Your task to perform on an android device: Open eBay Image 0: 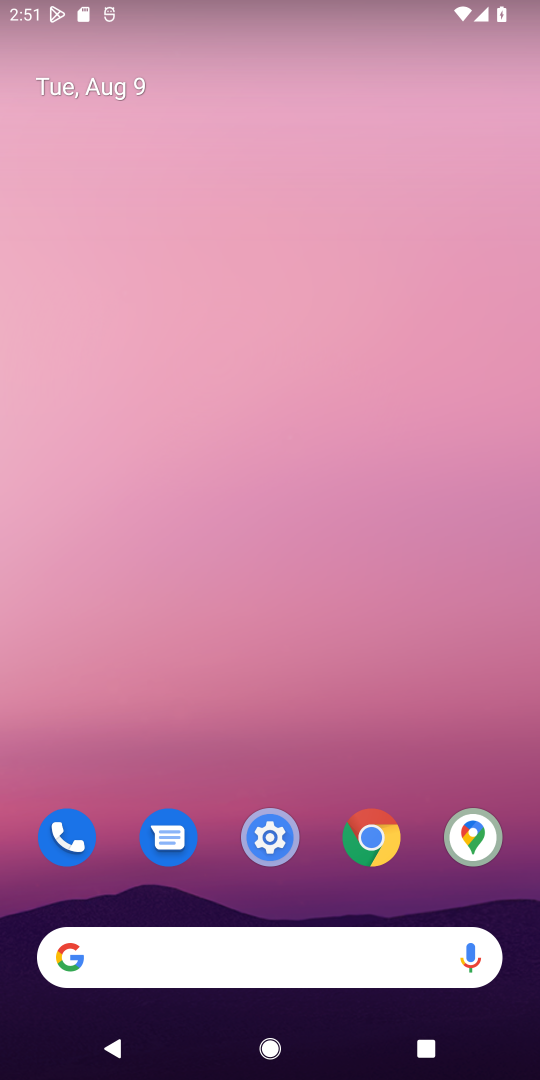
Step 0: drag from (86, 780) to (458, 114)
Your task to perform on an android device: Open eBay Image 1: 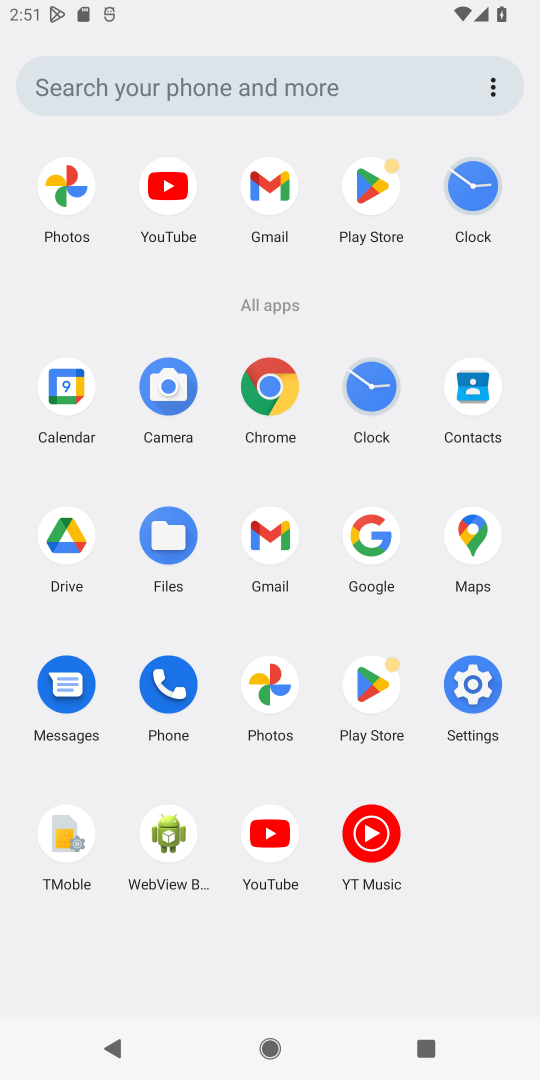
Step 1: click (267, 544)
Your task to perform on an android device: Open eBay Image 2: 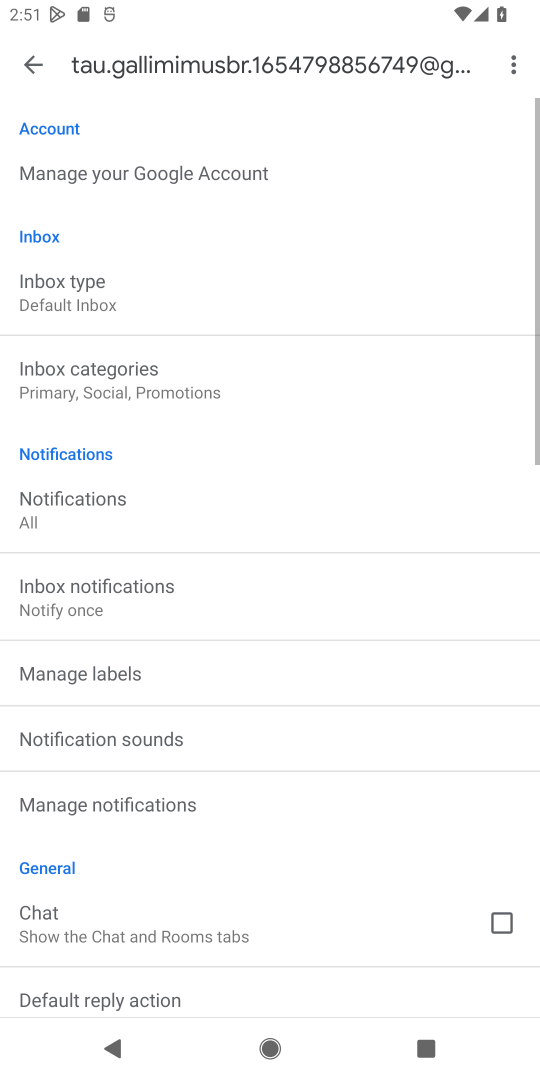
Step 2: press home button
Your task to perform on an android device: Open eBay Image 3: 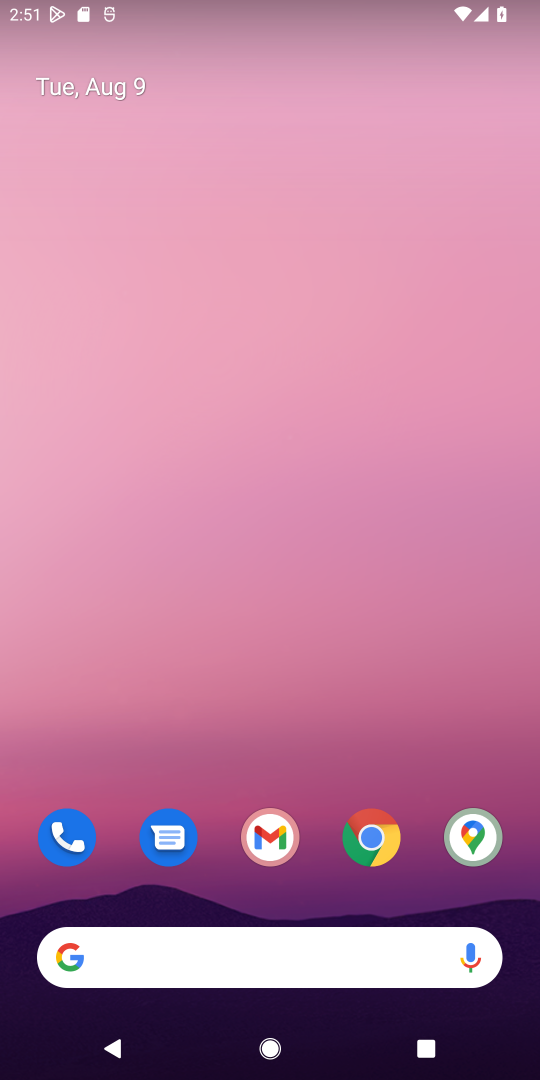
Step 3: drag from (187, 737) to (229, 169)
Your task to perform on an android device: Open eBay Image 4: 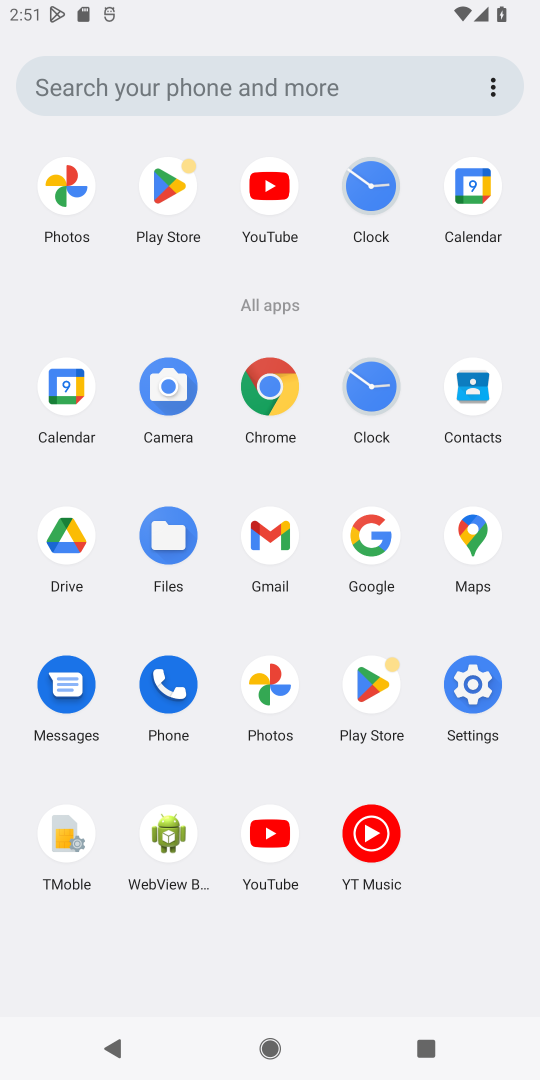
Step 4: click (257, 352)
Your task to perform on an android device: Open eBay Image 5: 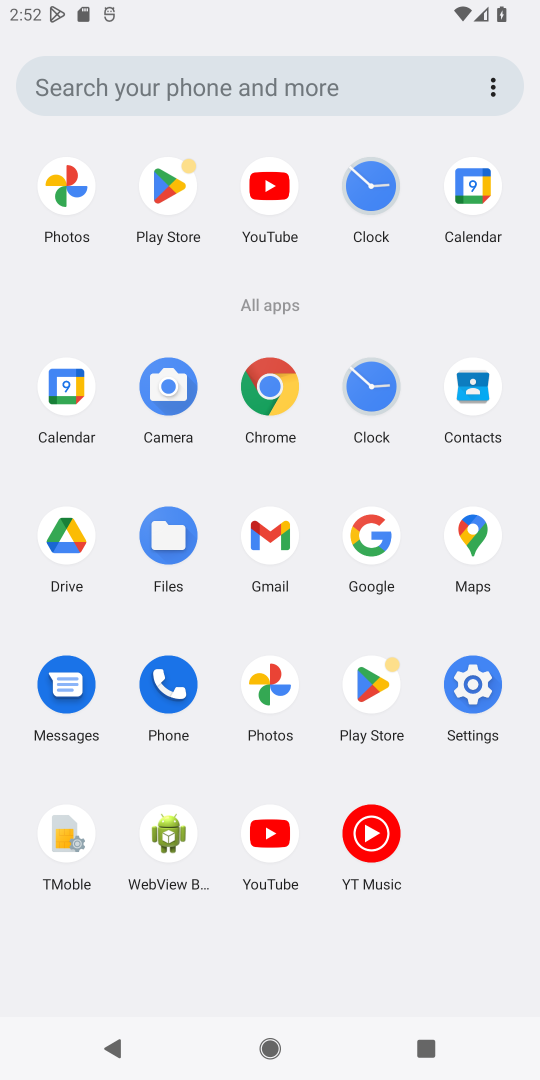
Step 5: click (274, 368)
Your task to perform on an android device: Open eBay Image 6: 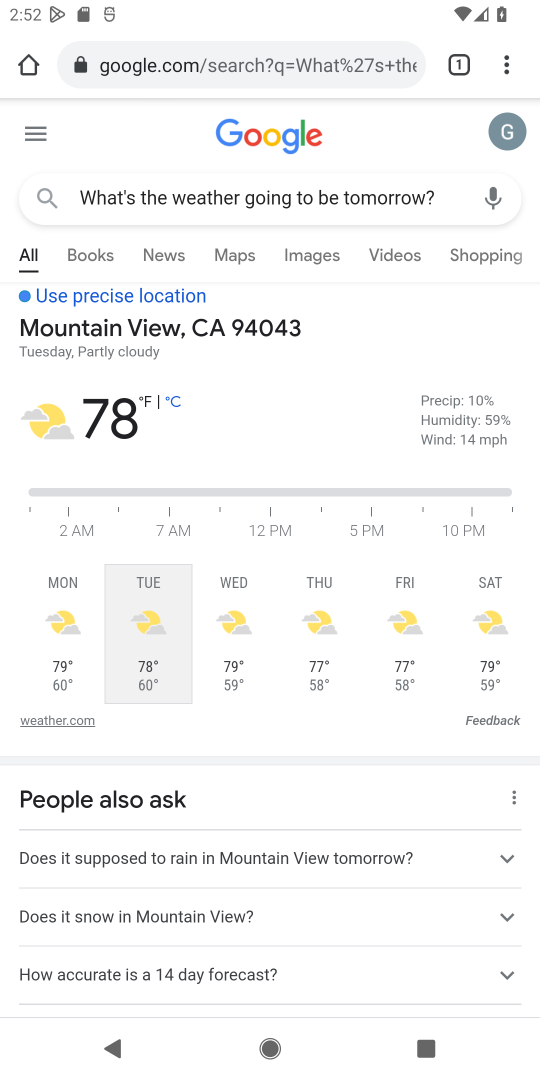
Step 6: click (500, 56)
Your task to perform on an android device: Open eBay Image 7: 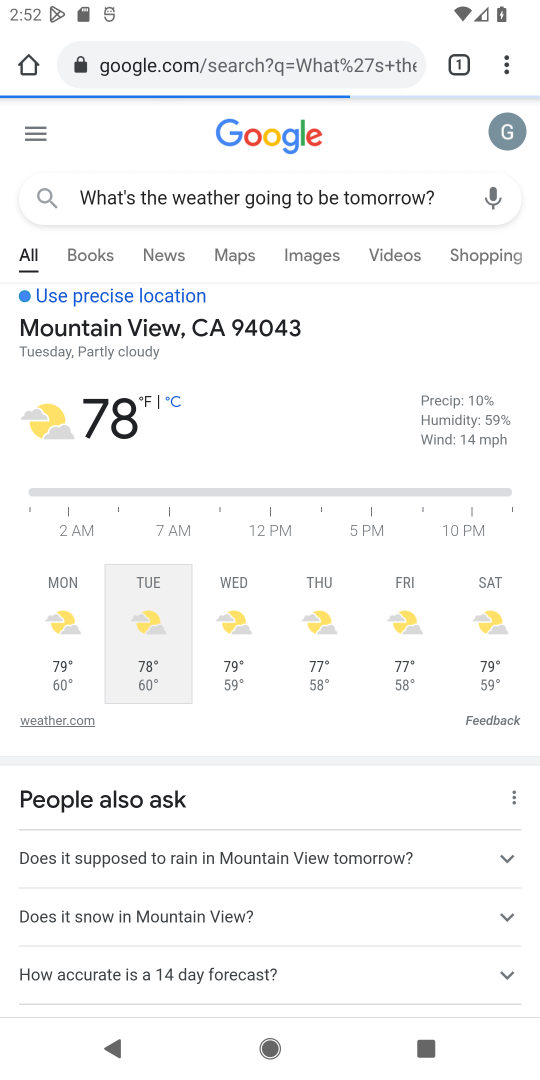
Step 7: click (501, 57)
Your task to perform on an android device: Open eBay Image 8: 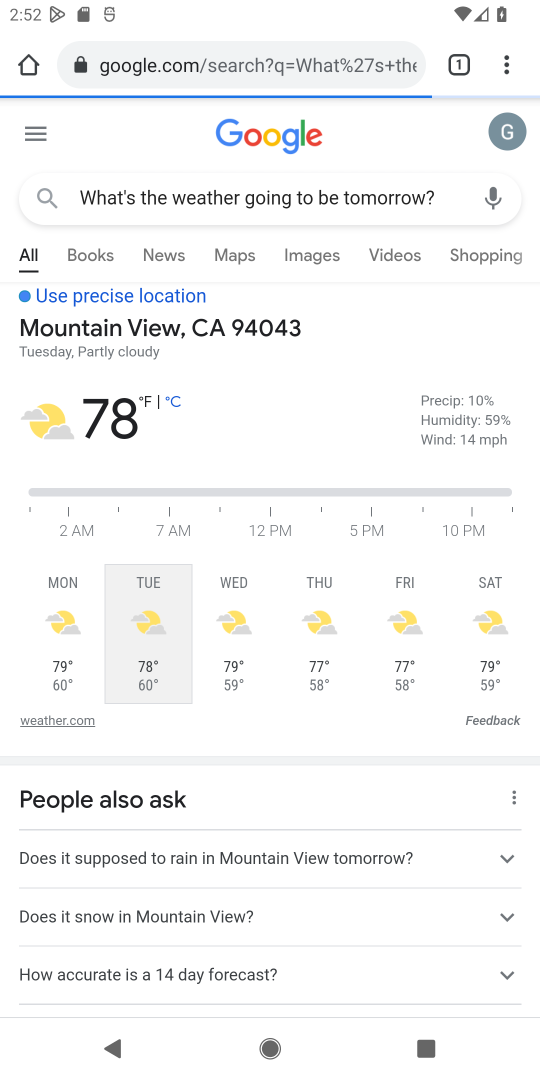
Step 8: click (500, 55)
Your task to perform on an android device: Open eBay Image 9: 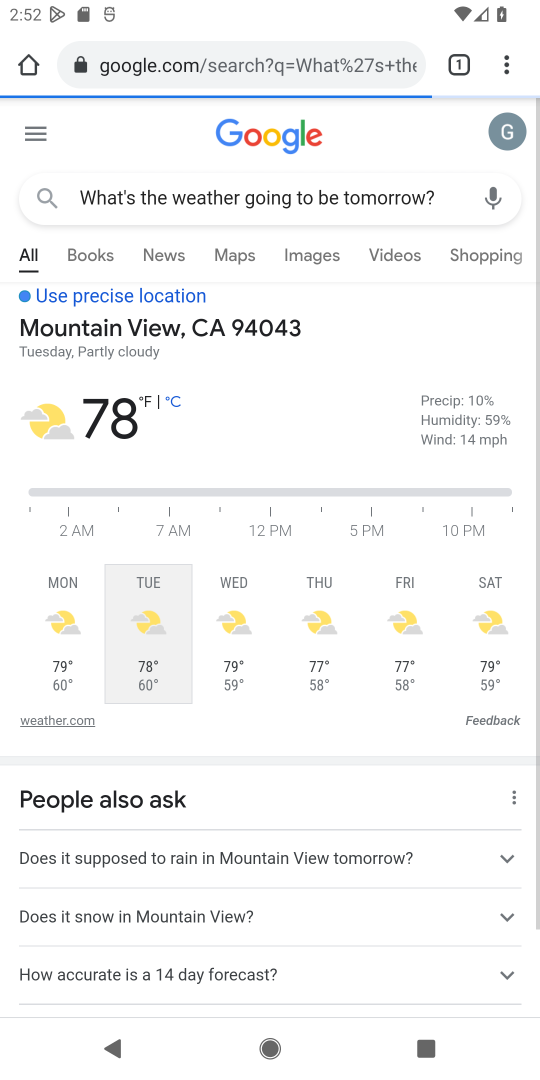
Step 9: click (500, 55)
Your task to perform on an android device: Open eBay Image 10: 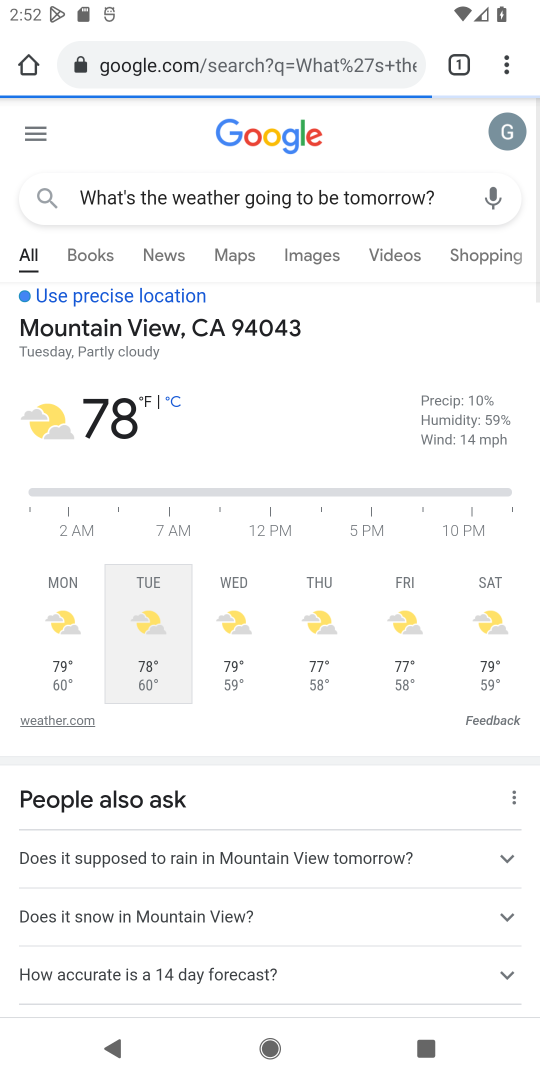
Step 10: click (500, 57)
Your task to perform on an android device: Open eBay Image 11: 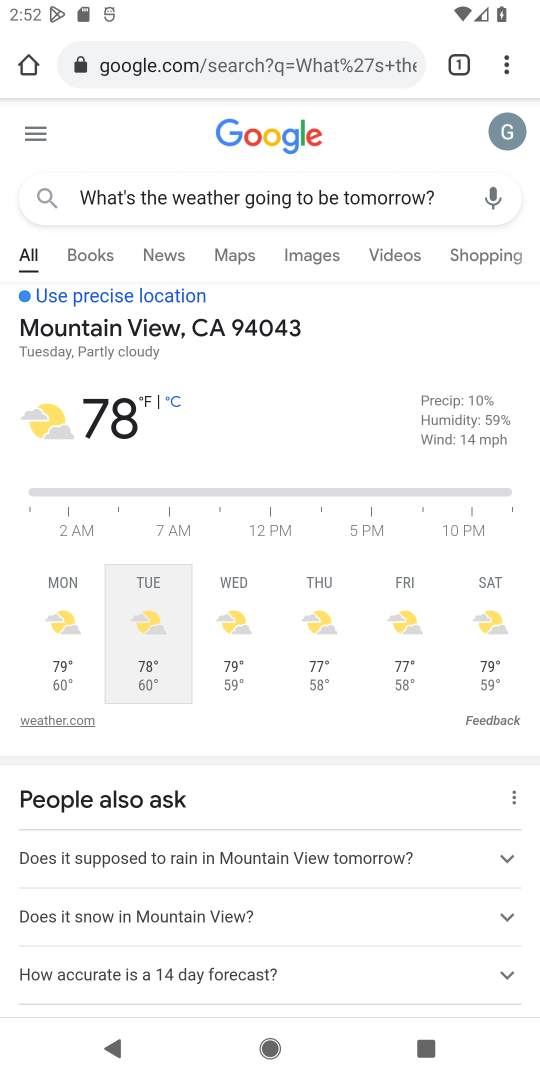
Step 11: click (508, 45)
Your task to perform on an android device: Open eBay Image 12: 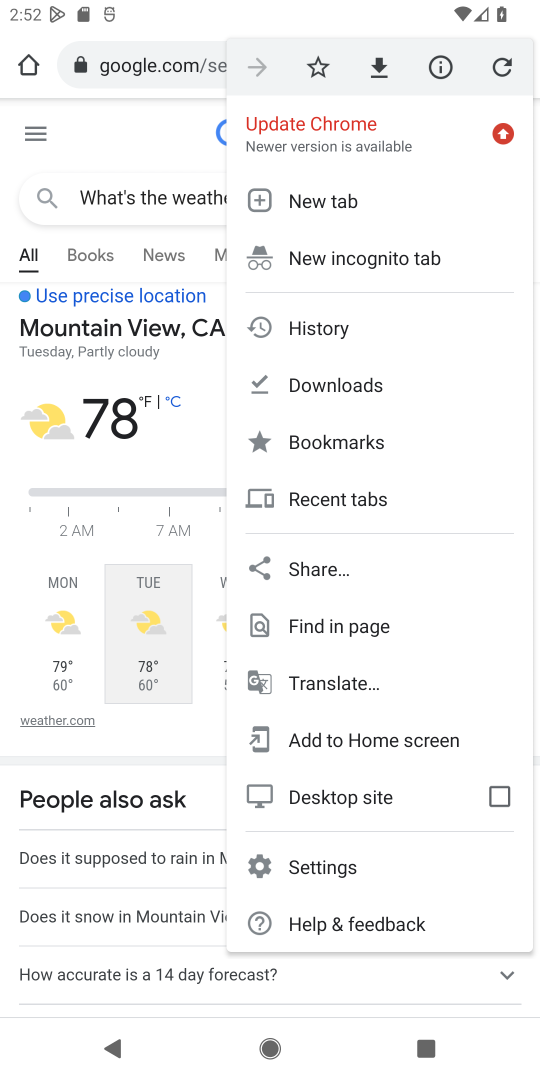
Step 12: click (314, 207)
Your task to perform on an android device: Open eBay Image 13: 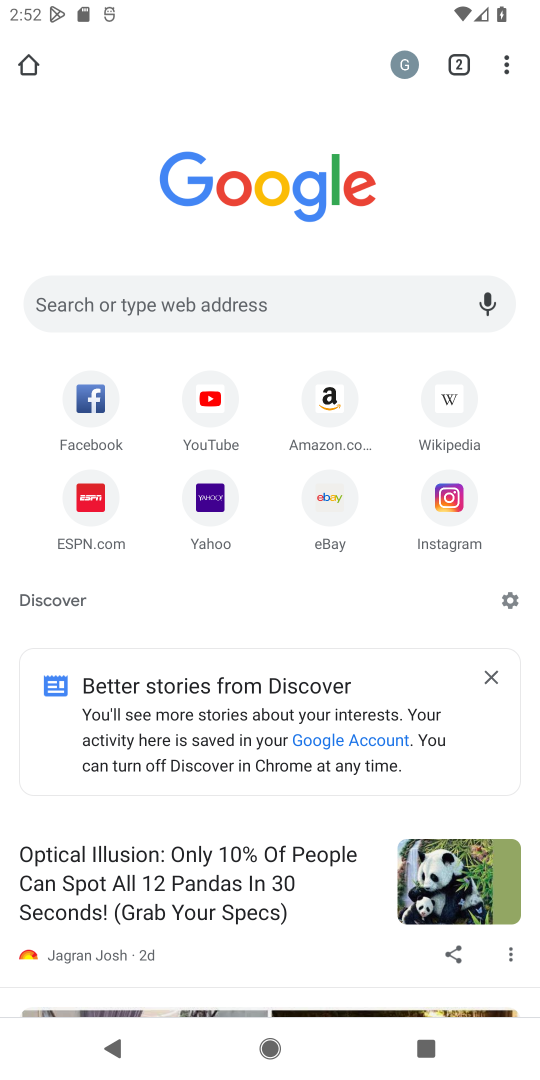
Step 13: click (333, 498)
Your task to perform on an android device: Open eBay Image 14: 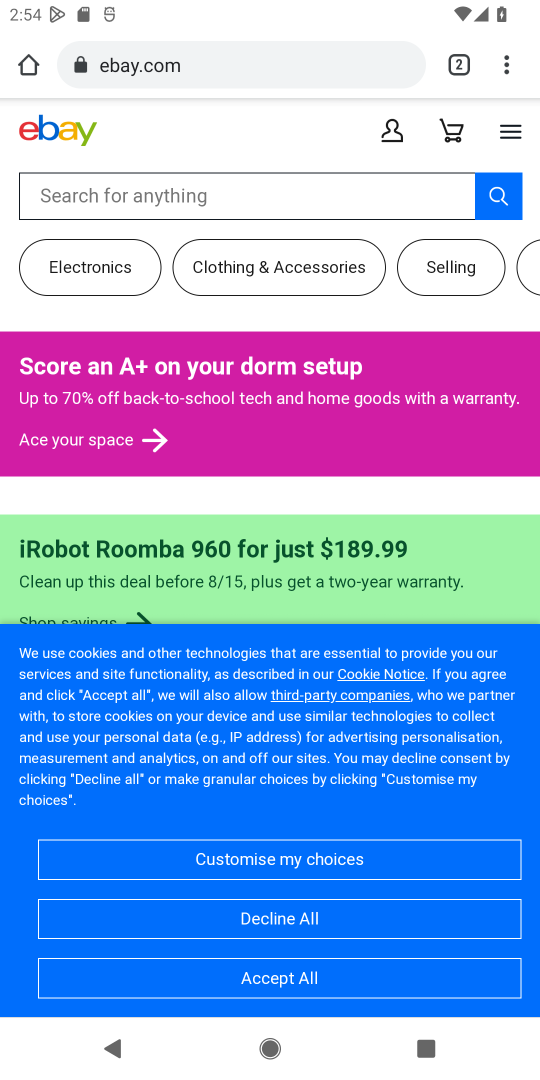
Step 14: task complete